Your task to perform on an android device: all mails in gmail Image 0: 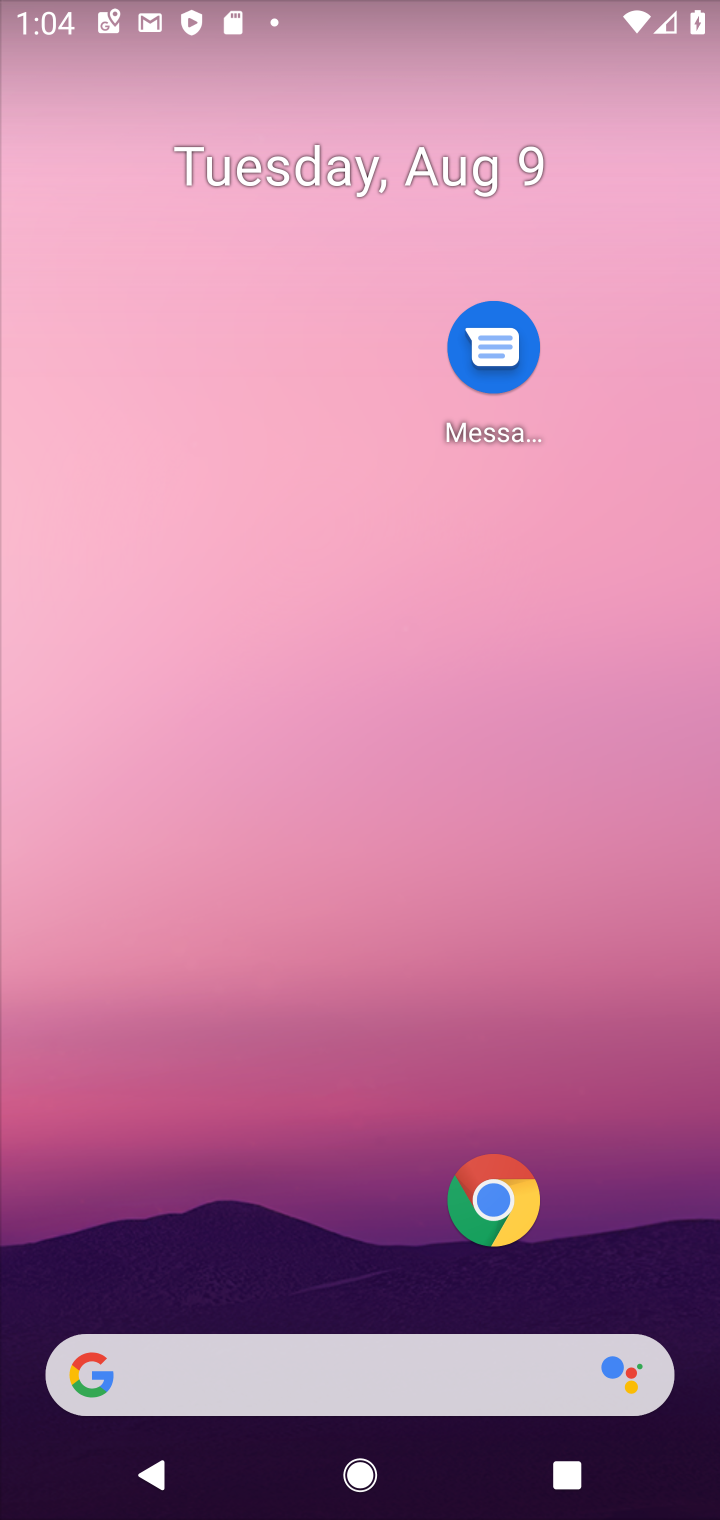
Step 0: drag from (309, 1269) to (445, 138)
Your task to perform on an android device: all mails in gmail Image 1: 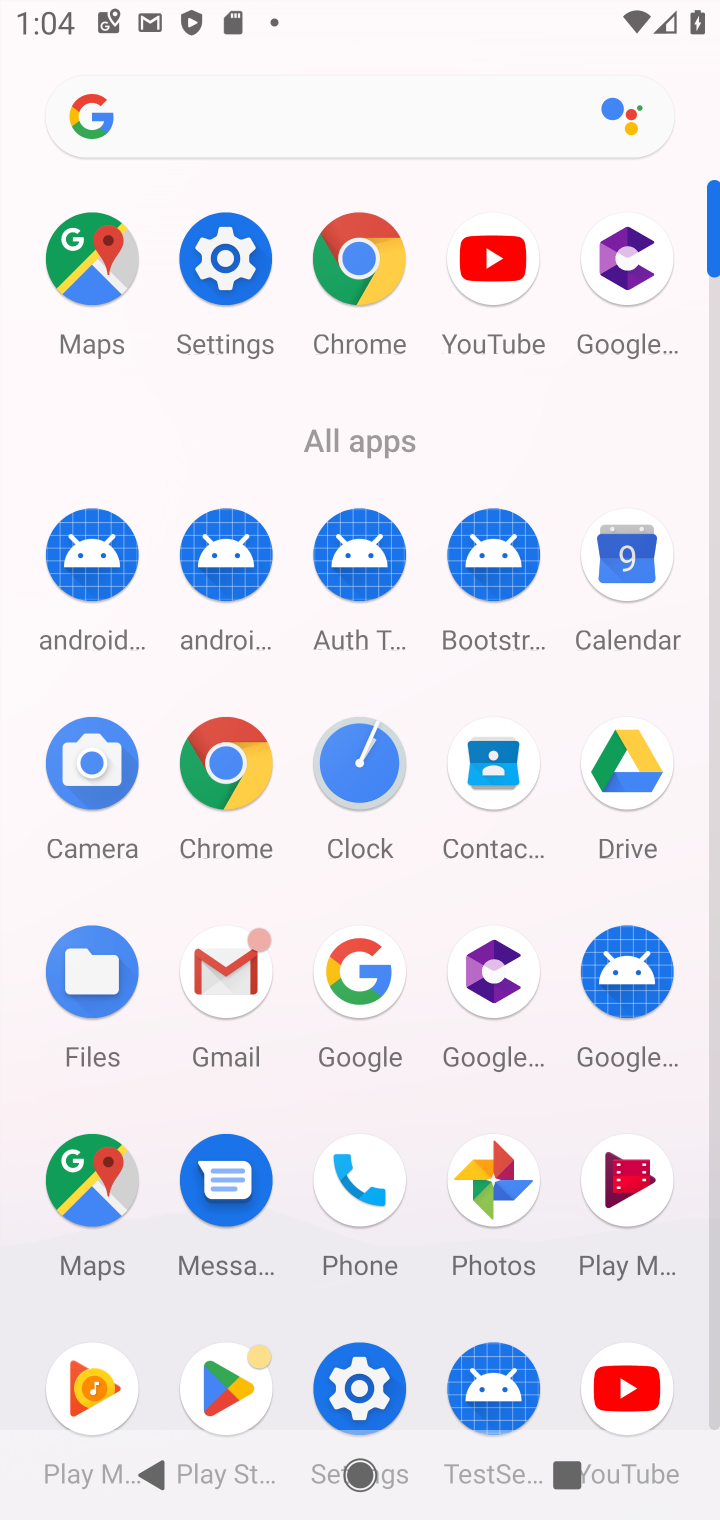
Step 1: click (222, 957)
Your task to perform on an android device: all mails in gmail Image 2: 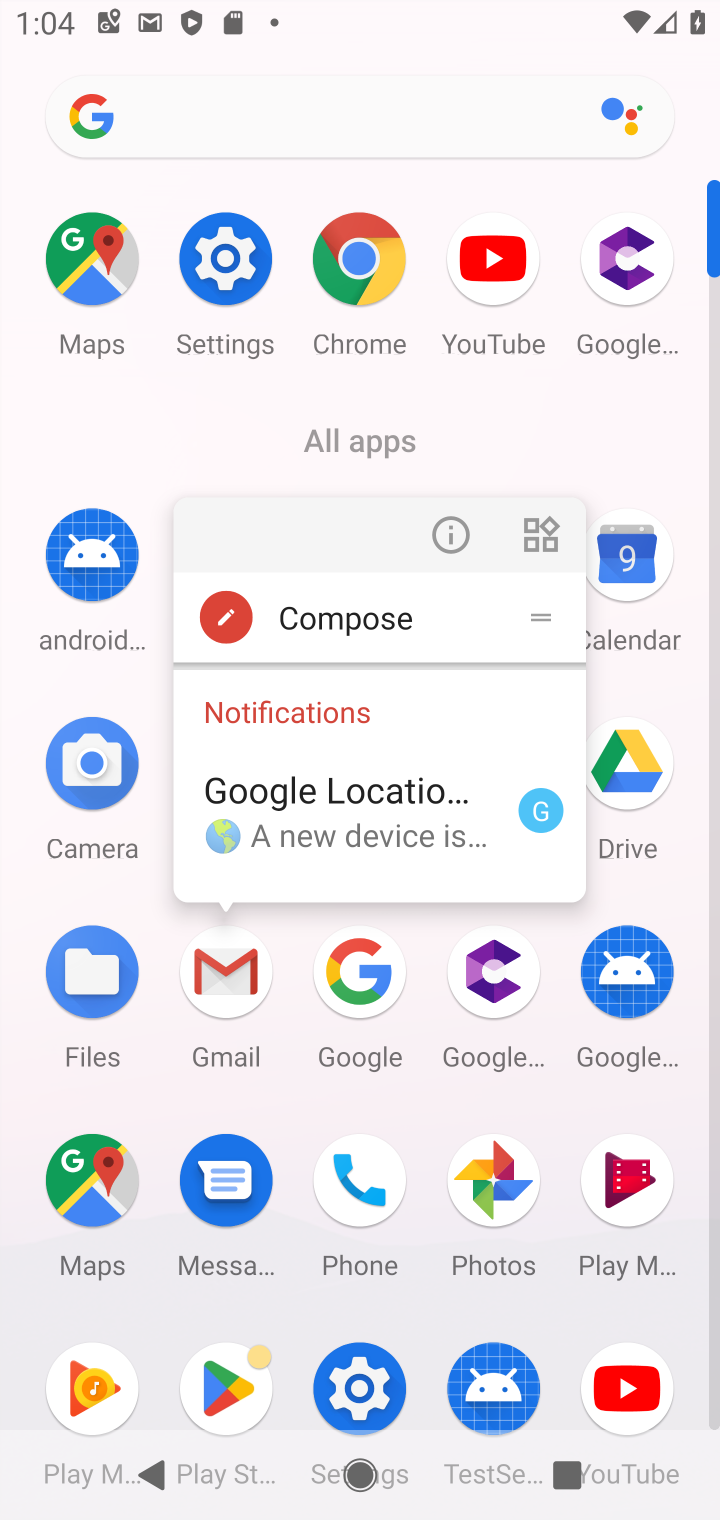
Step 2: click (238, 982)
Your task to perform on an android device: all mails in gmail Image 3: 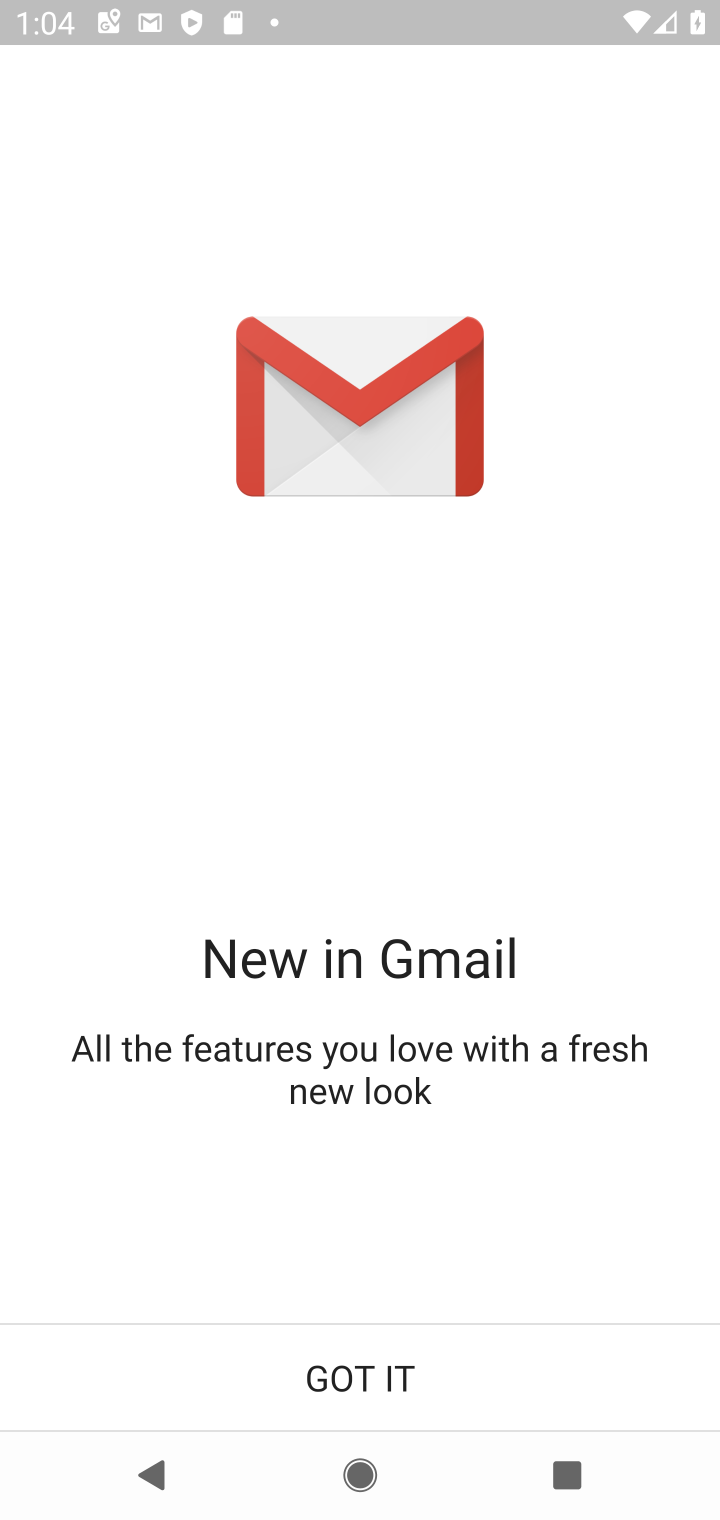
Step 3: click (333, 1351)
Your task to perform on an android device: all mails in gmail Image 4: 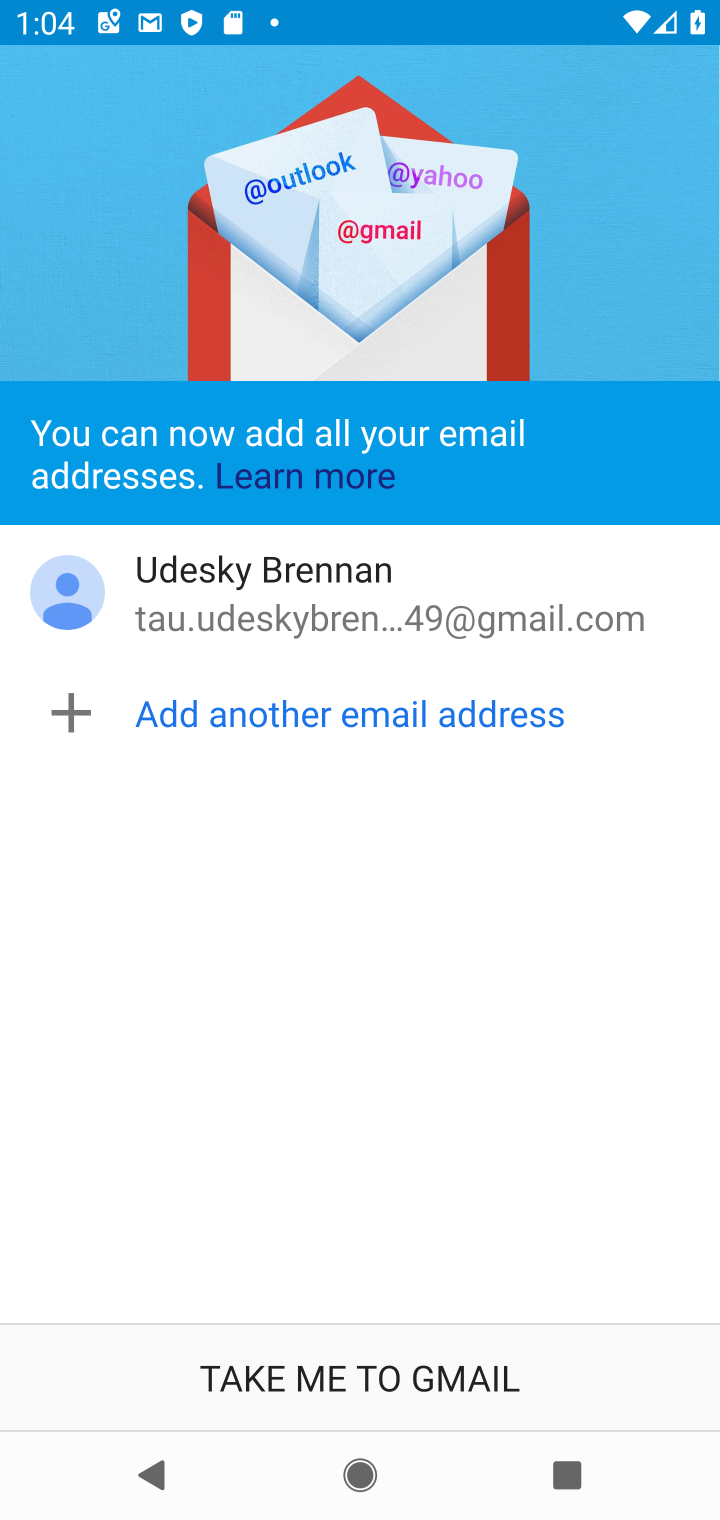
Step 4: click (366, 1381)
Your task to perform on an android device: all mails in gmail Image 5: 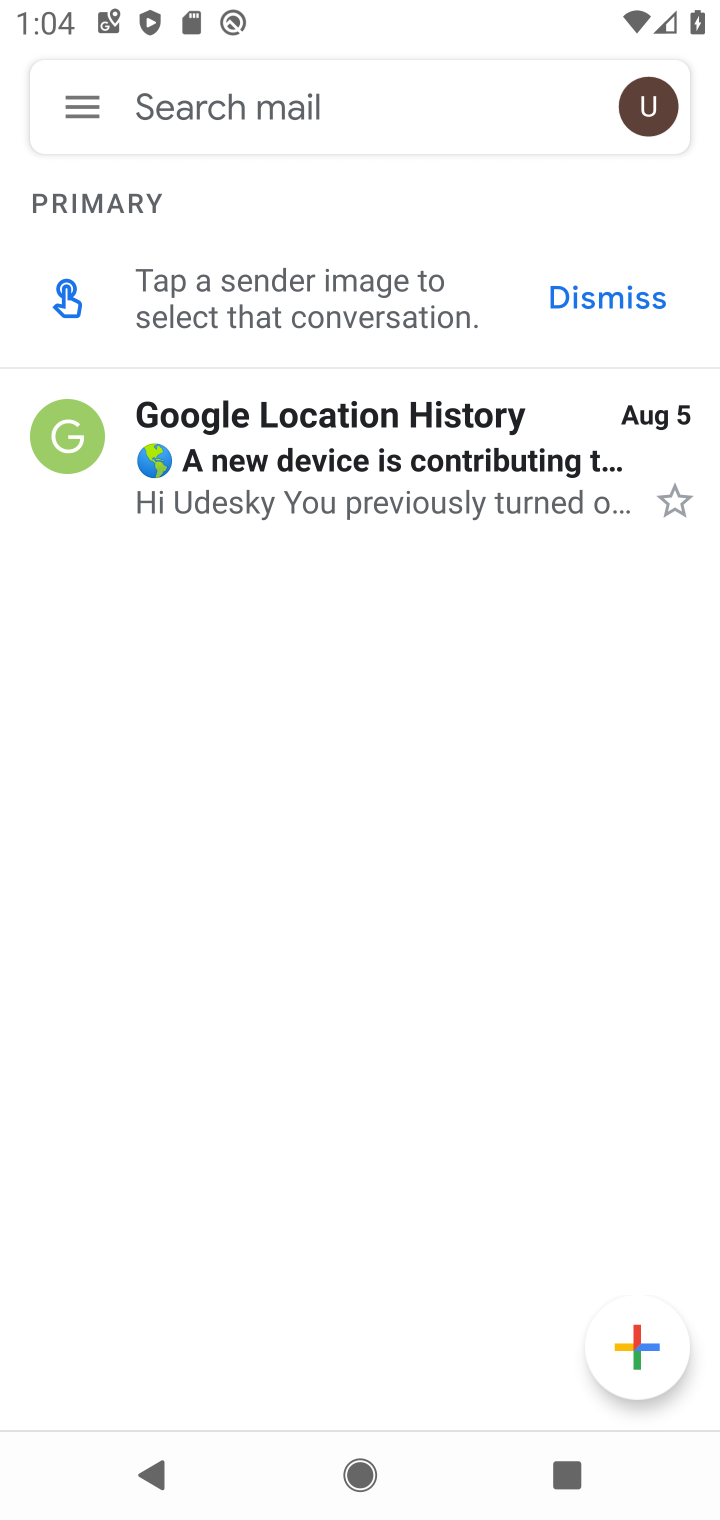
Step 5: click (100, 119)
Your task to perform on an android device: all mails in gmail Image 6: 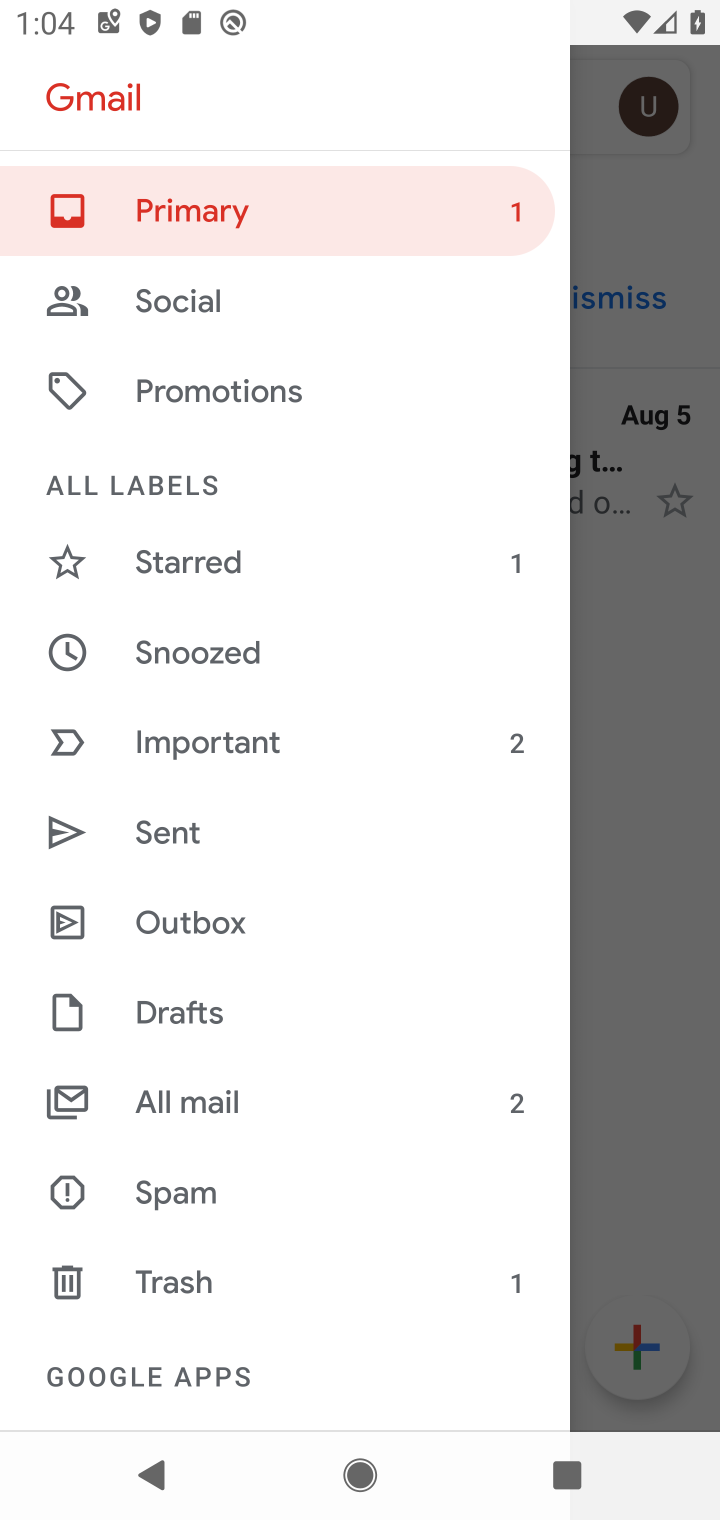
Step 6: click (266, 1088)
Your task to perform on an android device: all mails in gmail Image 7: 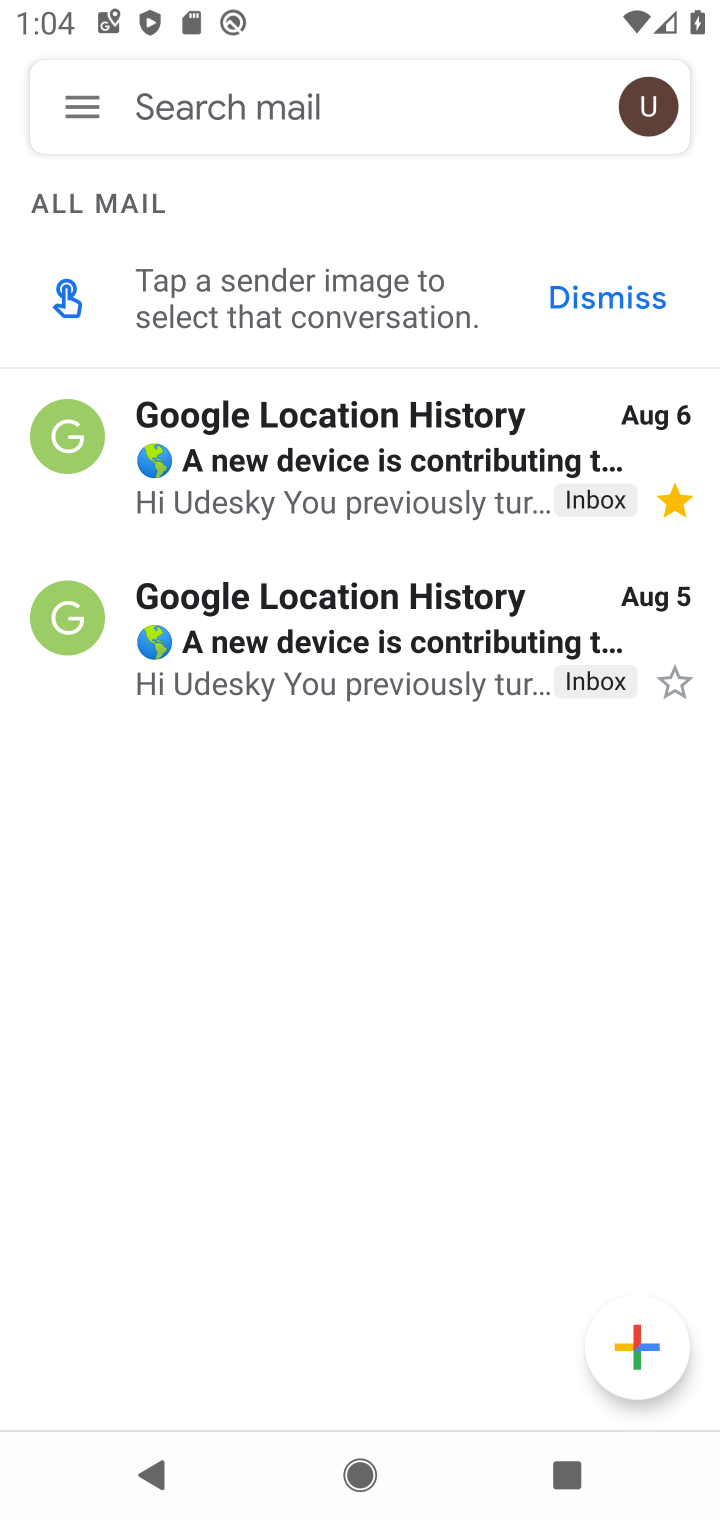
Step 7: task complete